Your task to perform on an android device: empty trash in the gmail app Image 0: 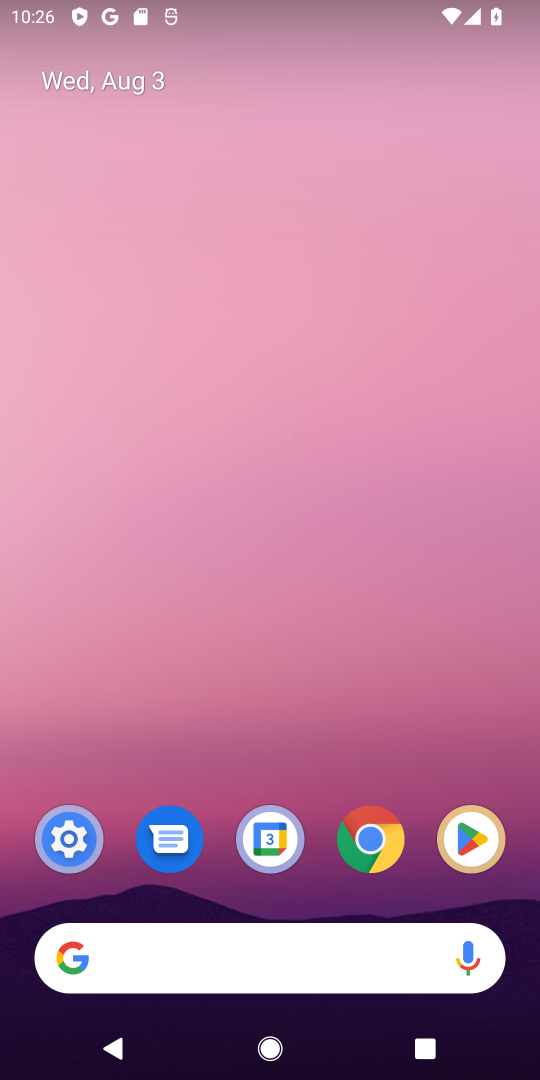
Step 0: drag from (222, 856) to (243, 26)
Your task to perform on an android device: empty trash in the gmail app Image 1: 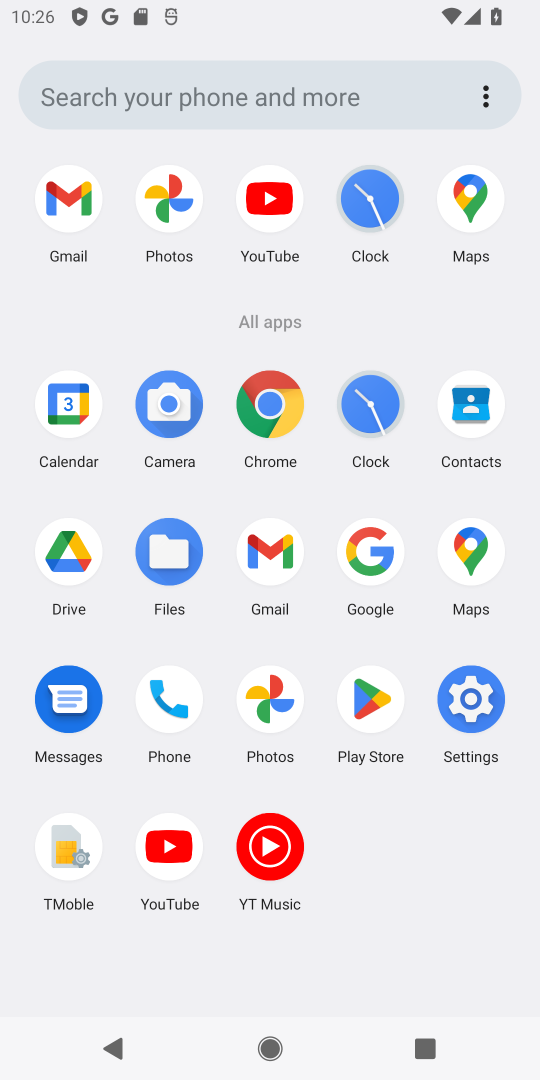
Step 1: click (268, 559)
Your task to perform on an android device: empty trash in the gmail app Image 2: 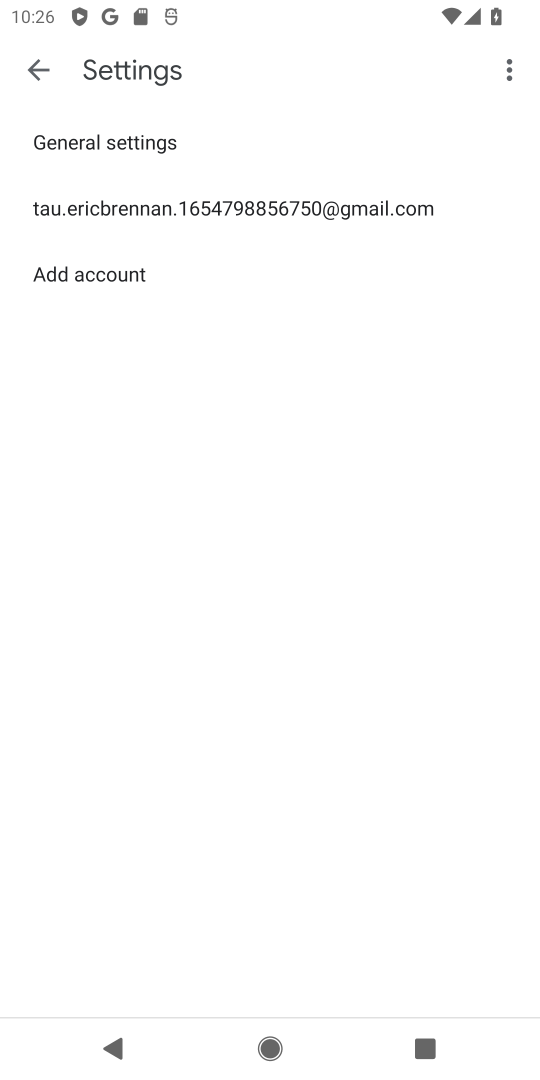
Step 2: click (46, 71)
Your task to perform on an android device: empty trash in the gmail app Image 3: 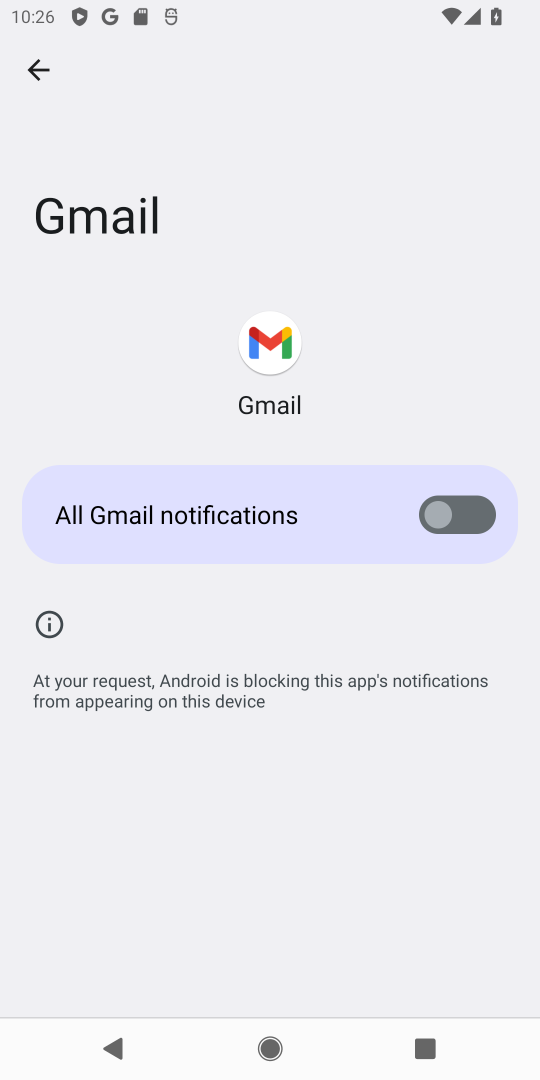
Step 3: click (32, 66)
Your task to perform on an android device: empty trash in the gmail app Image 4: 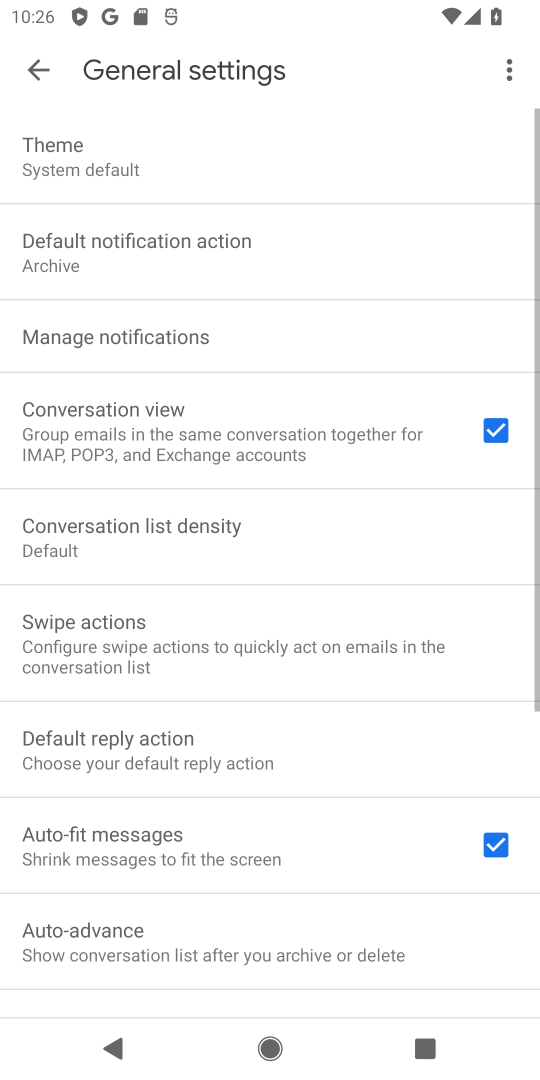
Step 4: click (32, 66)
Your task to perform on an android device: empty trash in the gmail app Image 5: 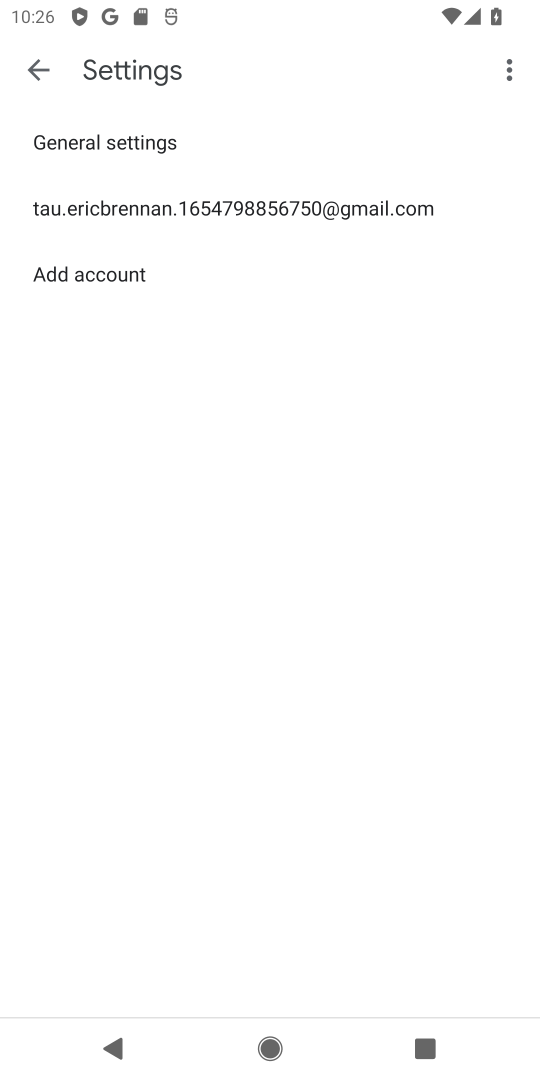
Step 5: click (25, 74)
Your task to perform on an android device: empty trash in the gmail app Image 6: 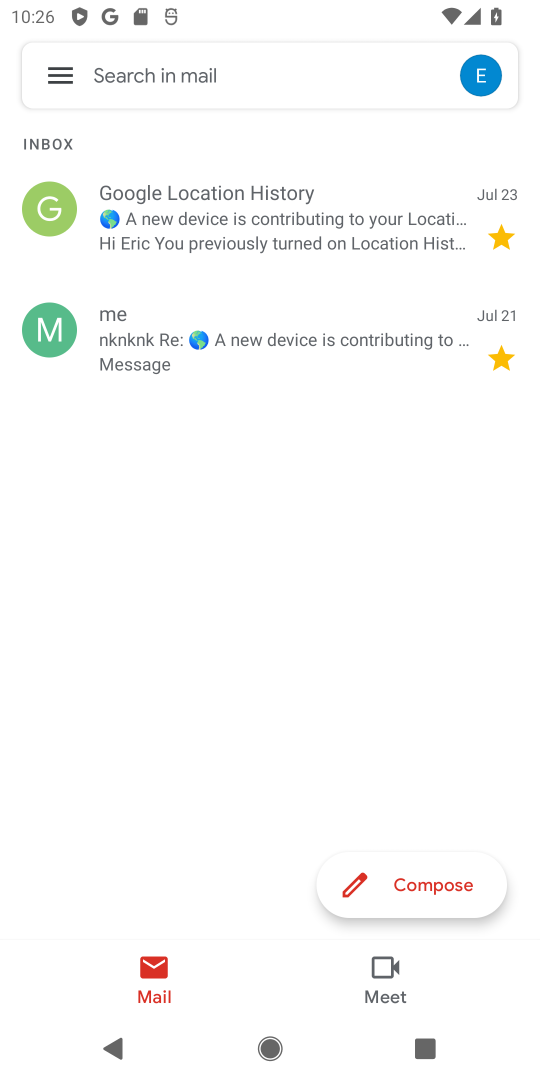
Step 6: click (43, 79)
Your task to perform on an android device: empty trash in the gmail app Image 7: 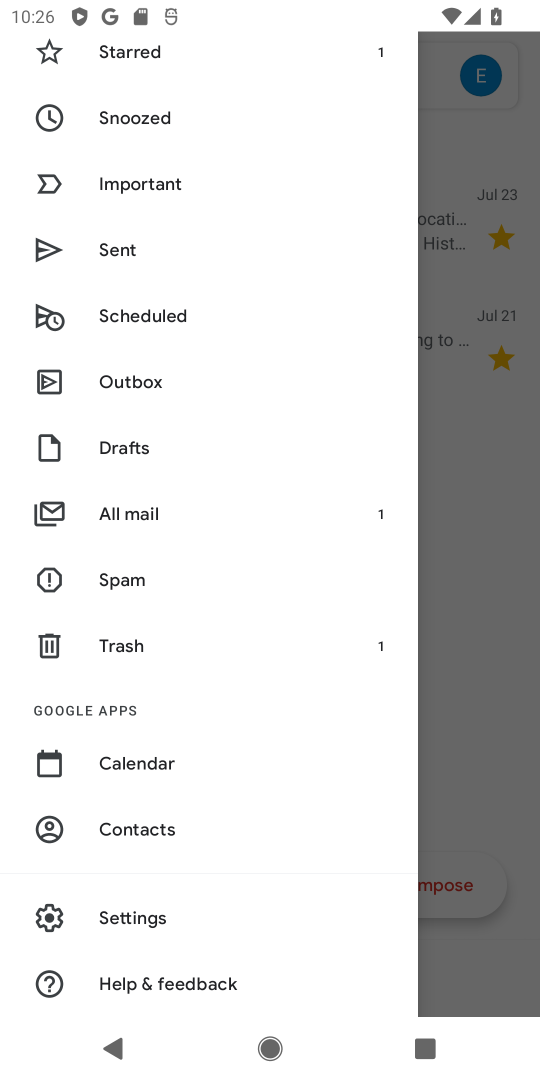
Step 7: click (129, 648)
Your task to perform on an android device: empty trash in the gmail app Image 8: 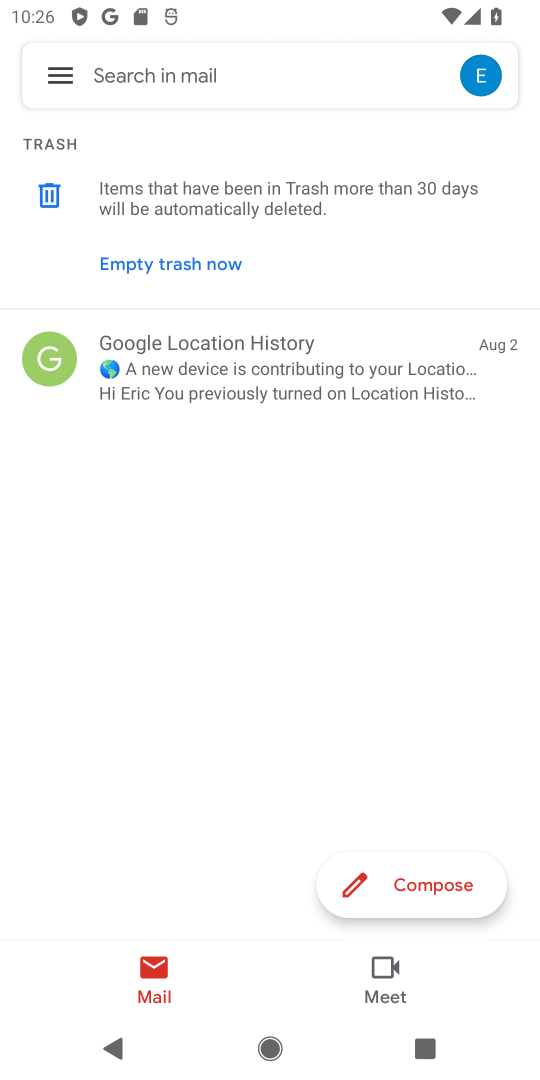
Step 8: click (148, 265)
Your task to perform on an android device: empty trash in the gmail app Image 9: 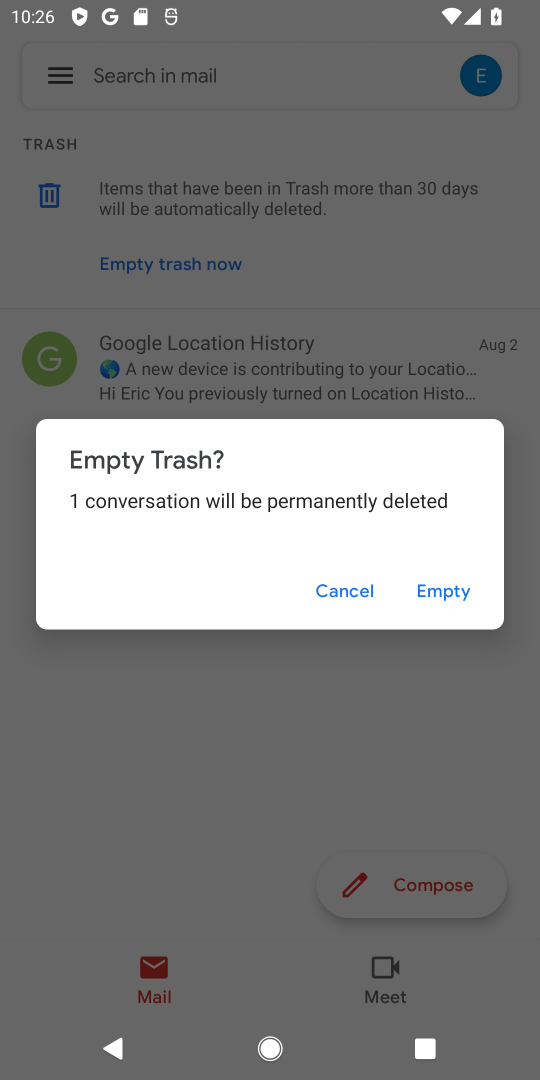
Step 9: click (458, 591)
Your task to perform on an android device: empty trash in the gmail app Image 10: 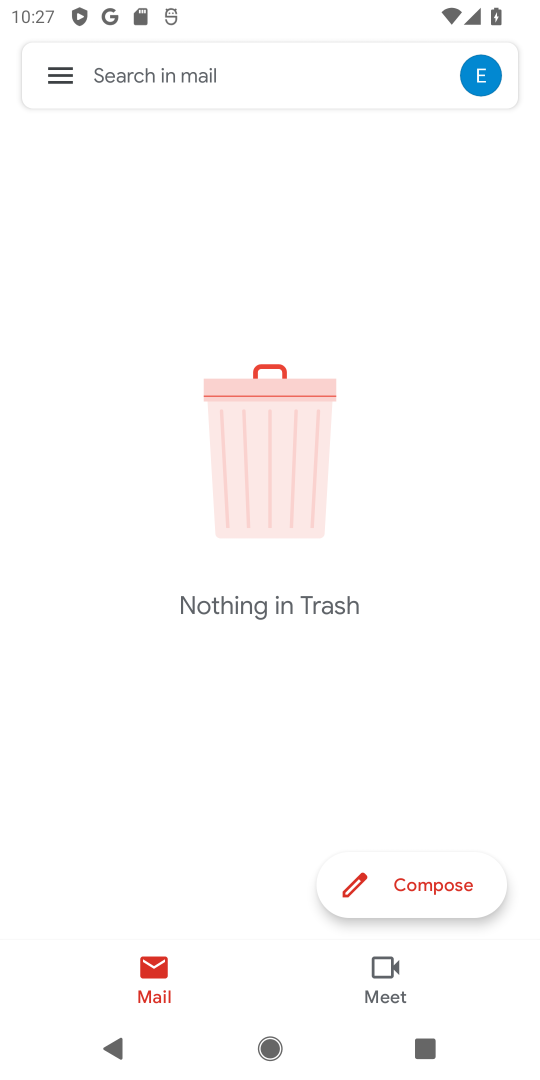
Step 10: task complete